Your task to perform on an android device: allow notifications from all sites in the chrome app Image 0: 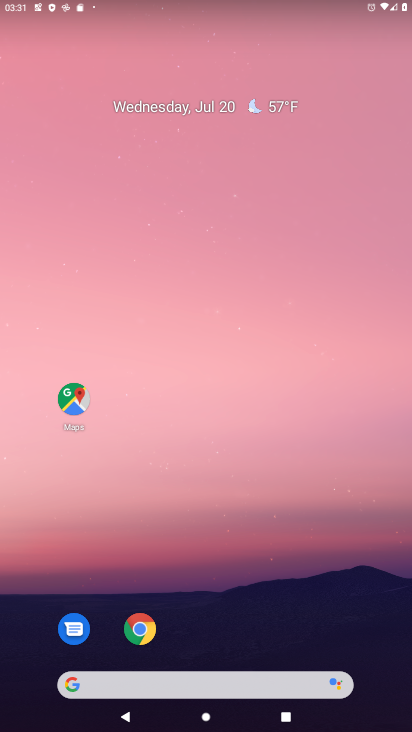
Step 0: click (142, 632)
Your task to perform on an android device: allow notifications from all sites in the chrome app Image 1: 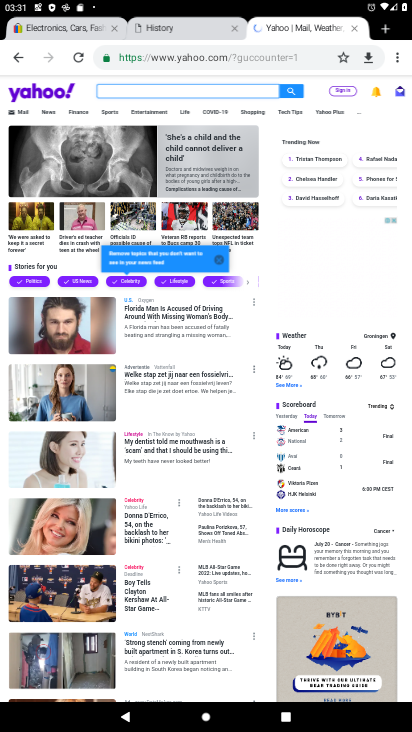
Step 1: click (399, 63)
Your task to perform on an android device: allow notifications from all sites in the chrome app Image 2: 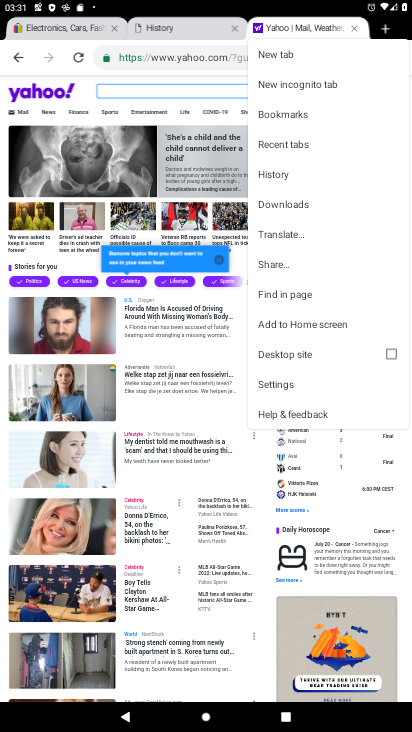
Step 2: click (275, 382)
Your task to perform on an android device: allow notifications from all sites in the chrome app Image 3: 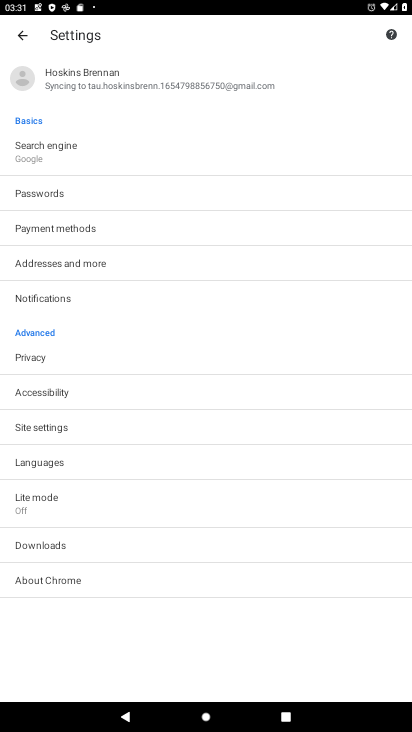
Step 3: click (44, 432)
Your task to perform on an android device: allow notifications from all sites in the chrome app Image 4: 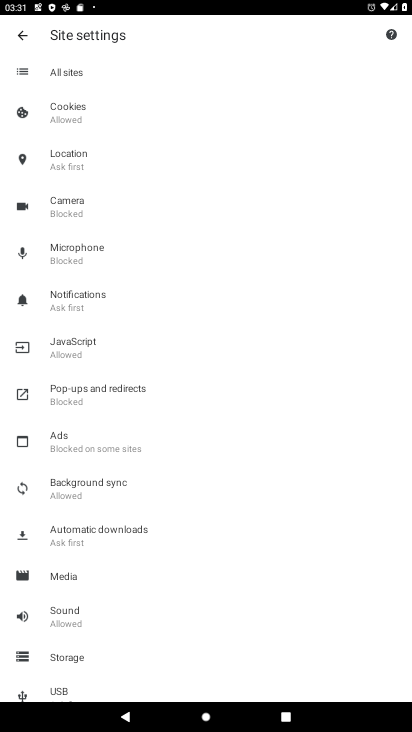
Step 4: click (71, 292)
Your task to perform on an android device: allow notifications from all sites in the chrome app Image 5: 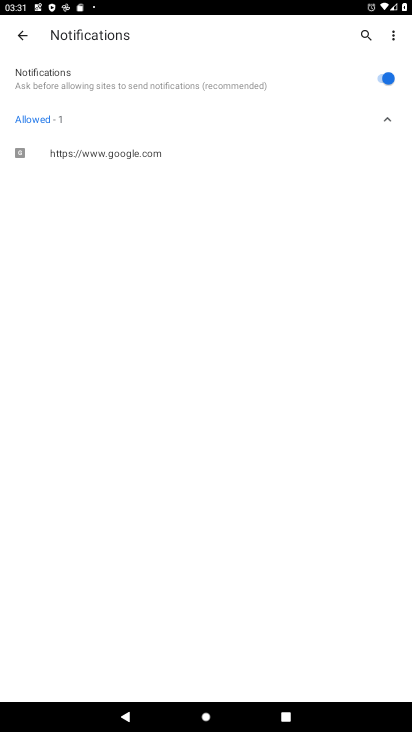
Step 5: task complete